Your task to perform on an android device: install app "ZOOM Cloud Meetings" Image 0: 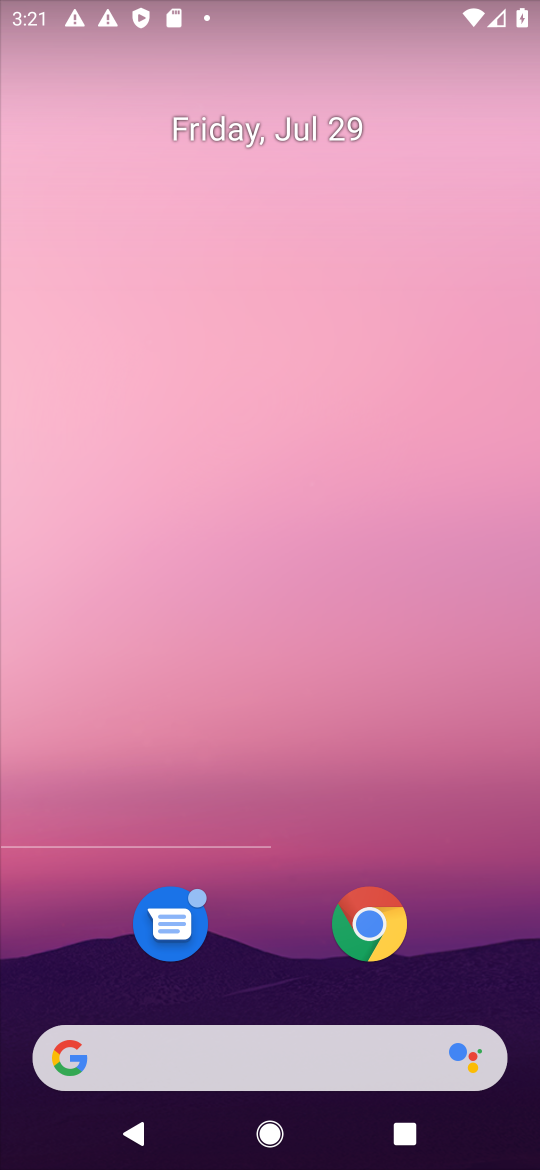
Step 0: press back button
Your task to perform on an android device: install app "ZOOM Cloud Meetings" Image 1: 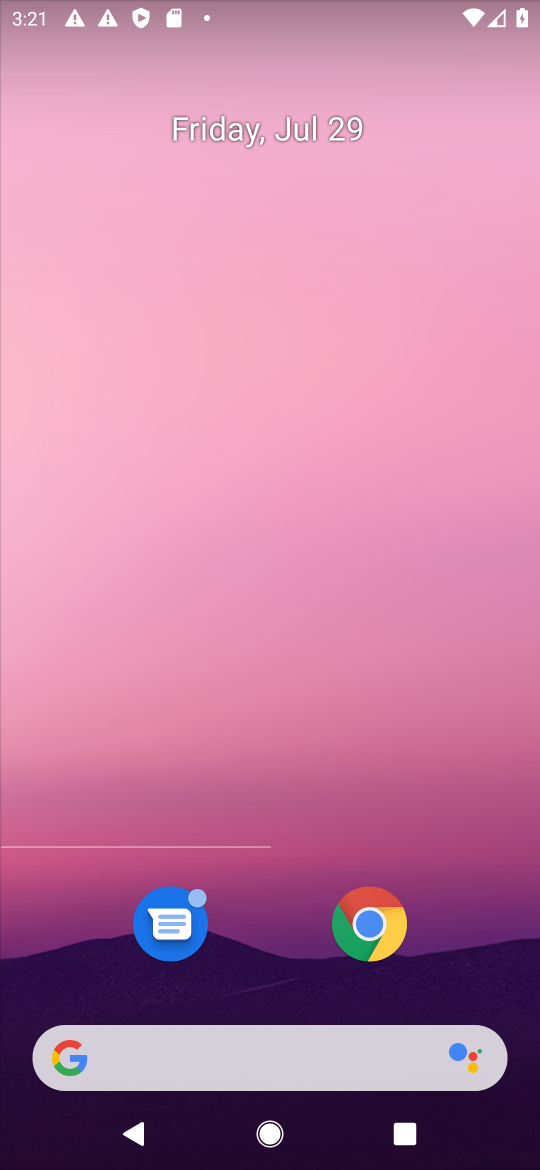
Step 1: press home button
Your task to perform on an android device: install app "ZOOM Cloud Meetings" Image 2: 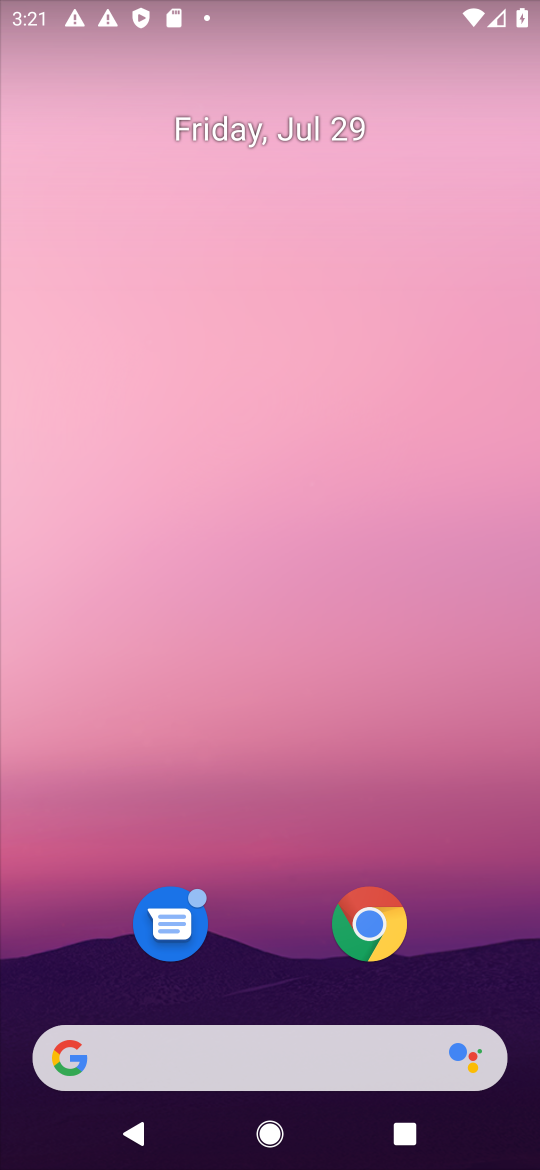
Step 2: press back button
Your task to perform on an android device: install app "ZOOM Cloud Meetings" Image 3: 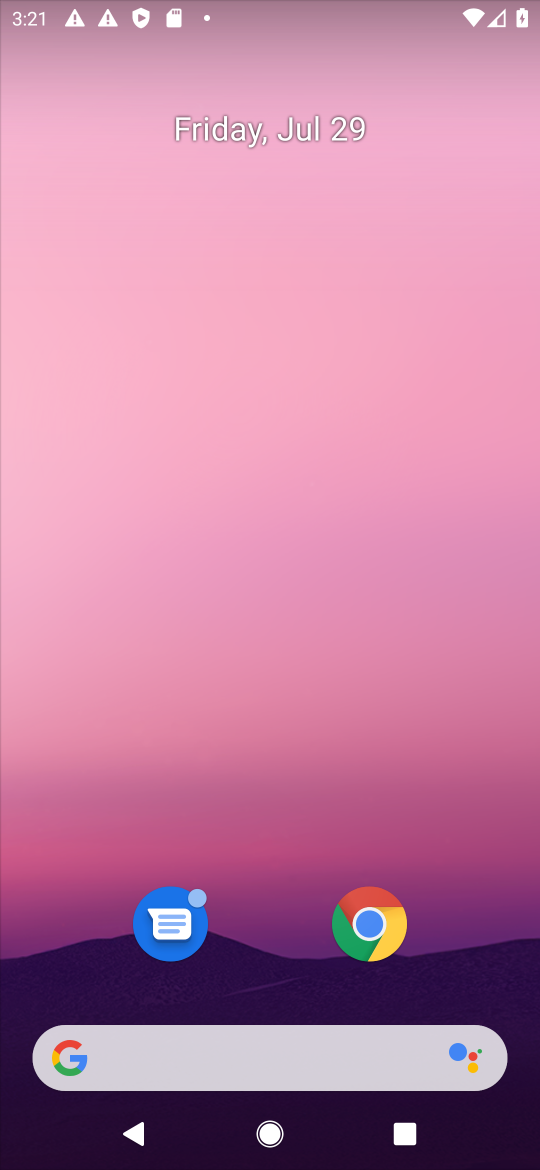
Step 3: drag from (220, 670) to (150, 261)
Your task to perform on an android device: install app "ZOOM Cloud Meetings" Image 4: 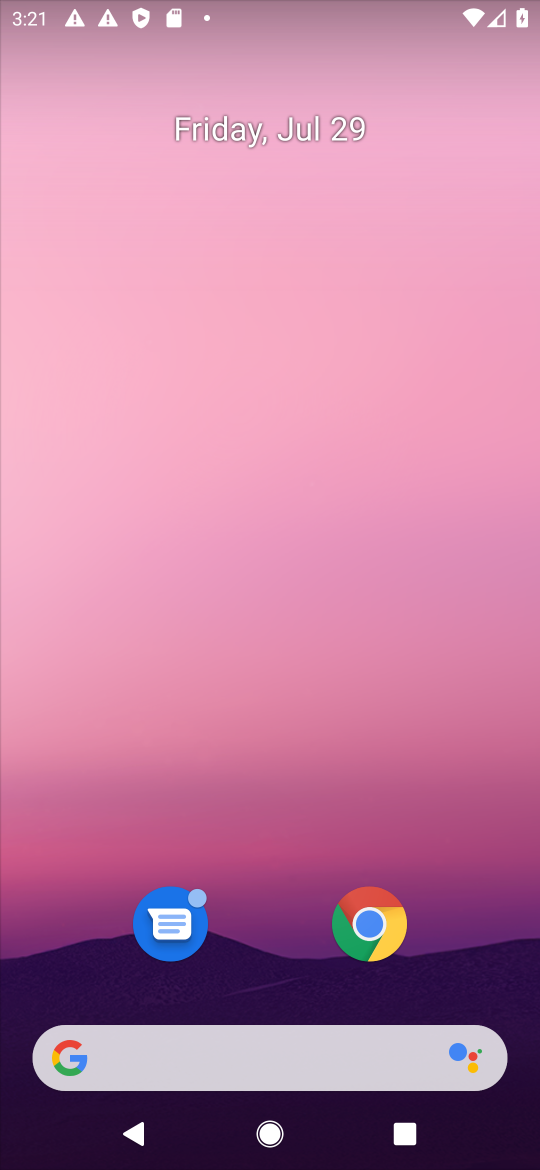
Step 4: drag from (344, 893) to (307, 331)
Your task to perform on an android device: install app "ZOOM Cloud Meetings" Image 5: 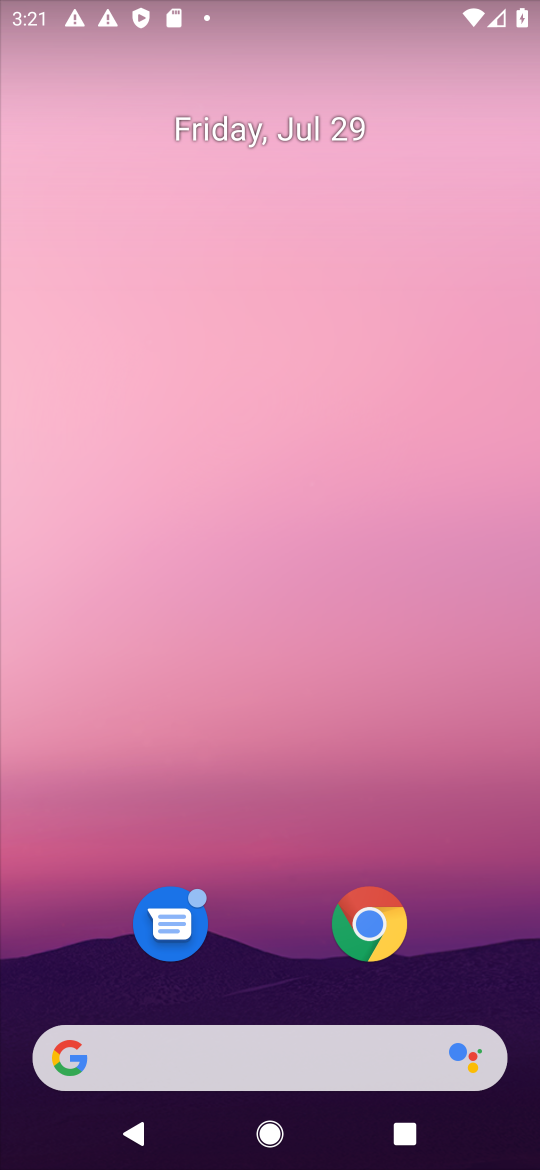
Step 5: drag from (348, 725) to (256, 268)
Your task to perform on an android device: install app "ZOOM Cloud Meetings" Image 6: 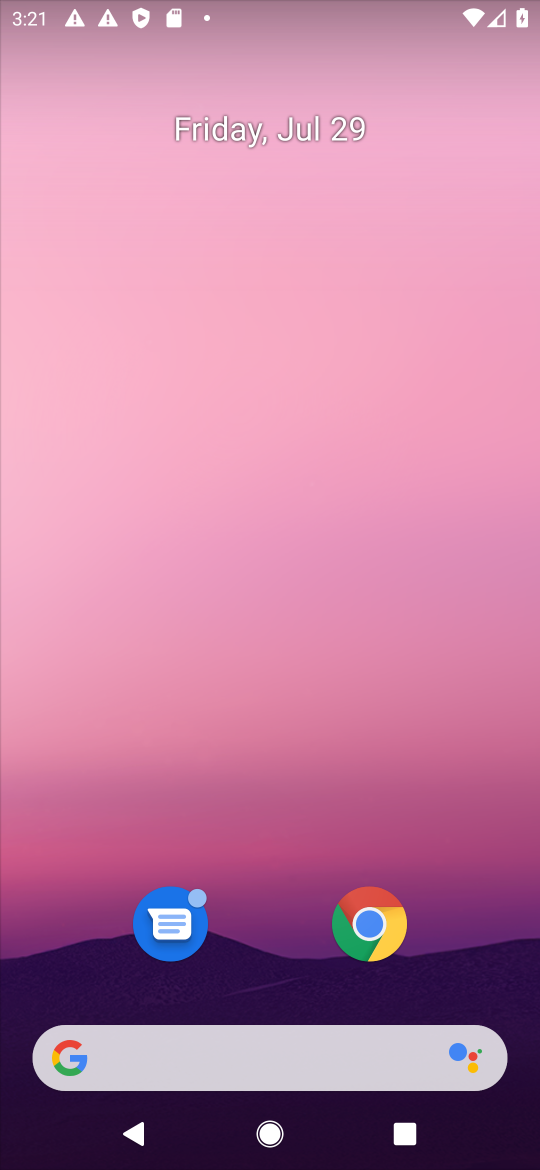
Step 6: drag from (260, 541) to (256, 345)
Your task to perform on an android device: install app "ZOOM Cloud Meetings" Image 7: 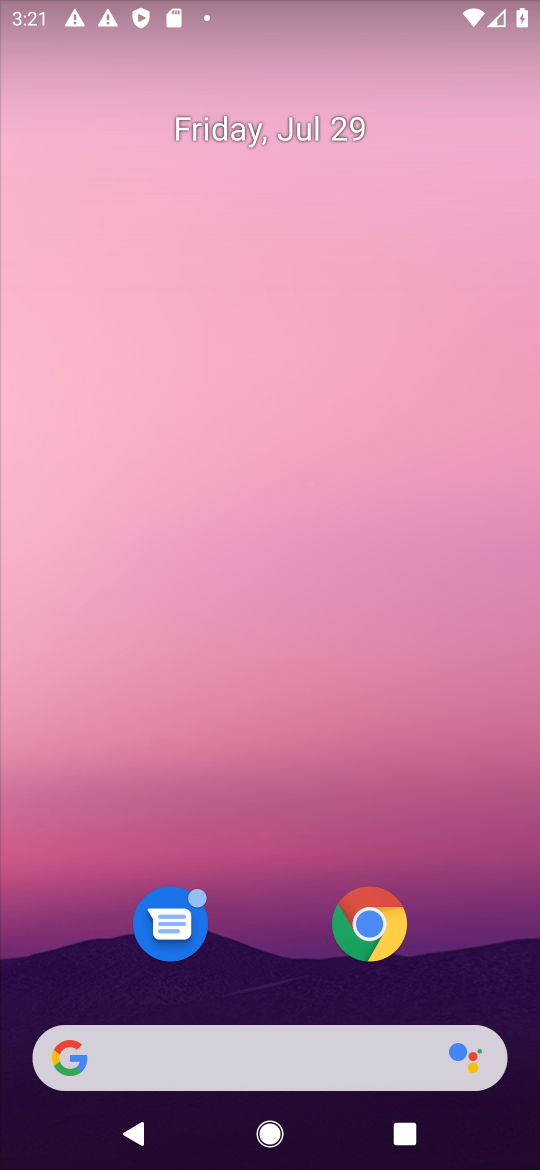
Step 7: drag from (294, 883) to (262, 366)
Your task to perform on an android device: install app "ZOOM Cloud Meetings" Image 8: 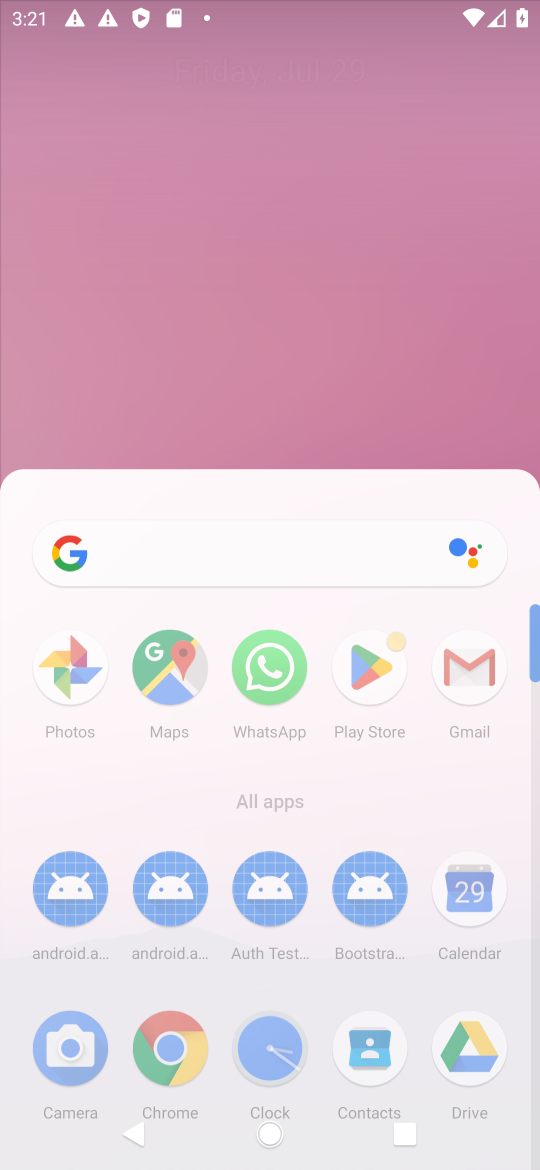
Step 8: drag from (193, 584) to (137, 356)
Your task to perform on an android device: install app "ZOOM Cloud Meetings" Image 9: 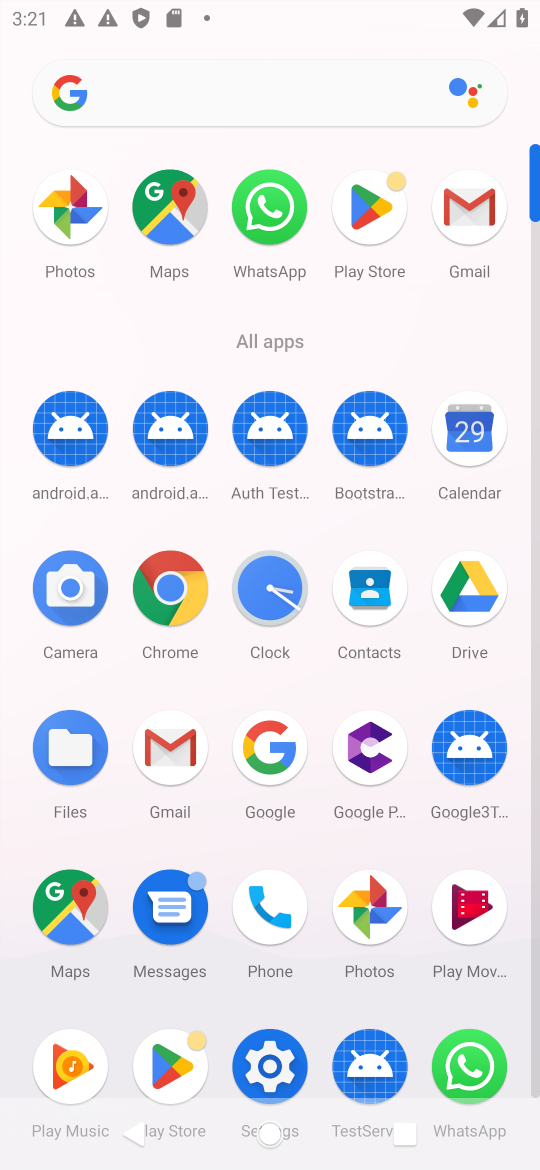
Step 9: drag from (217, 969) to (156, 585)
Your task to perform on an android device: install app "ZOOM Cloud Meetings" Image 10: 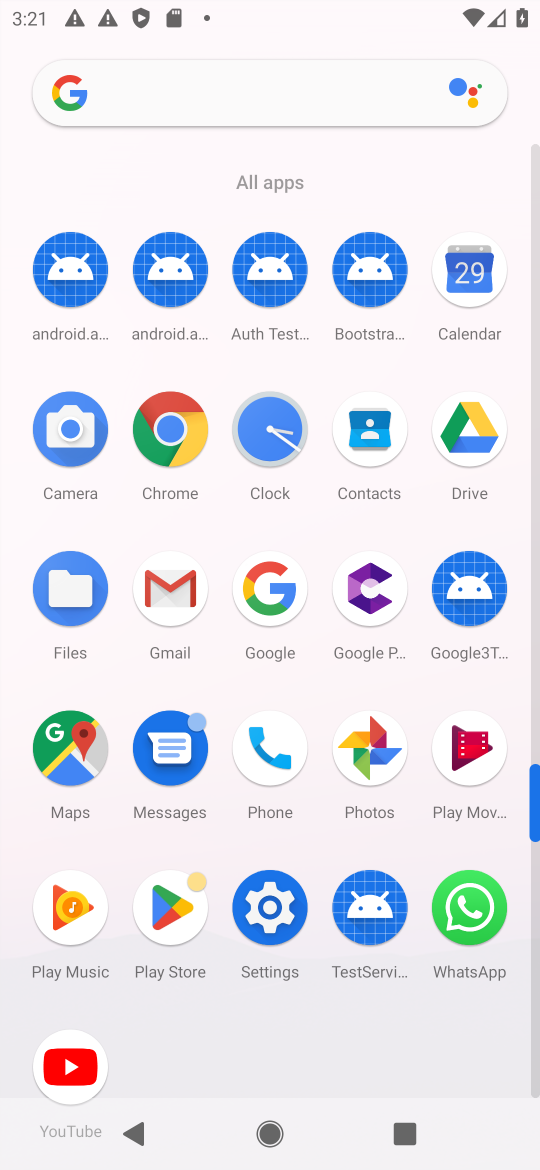
Step 10: click (177, 902)
Your task to perform on an android device: install app "ZOOM Cloud Meetings" Image 11: 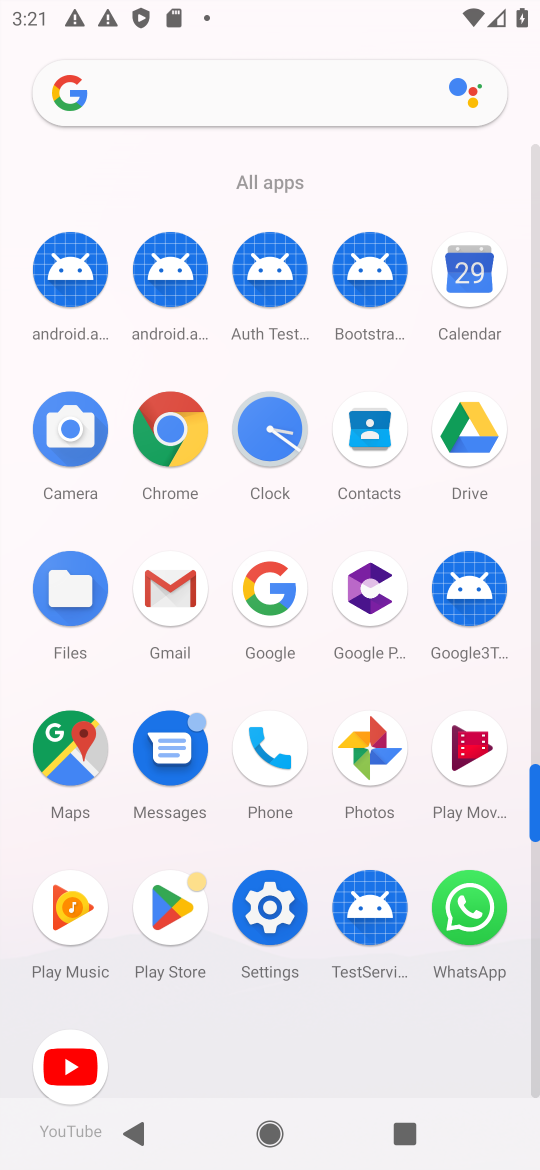
Step 11: click (174, 908)
Your task to perform on an android device: install app "ZOOM Cloud Meetings" Image 12: 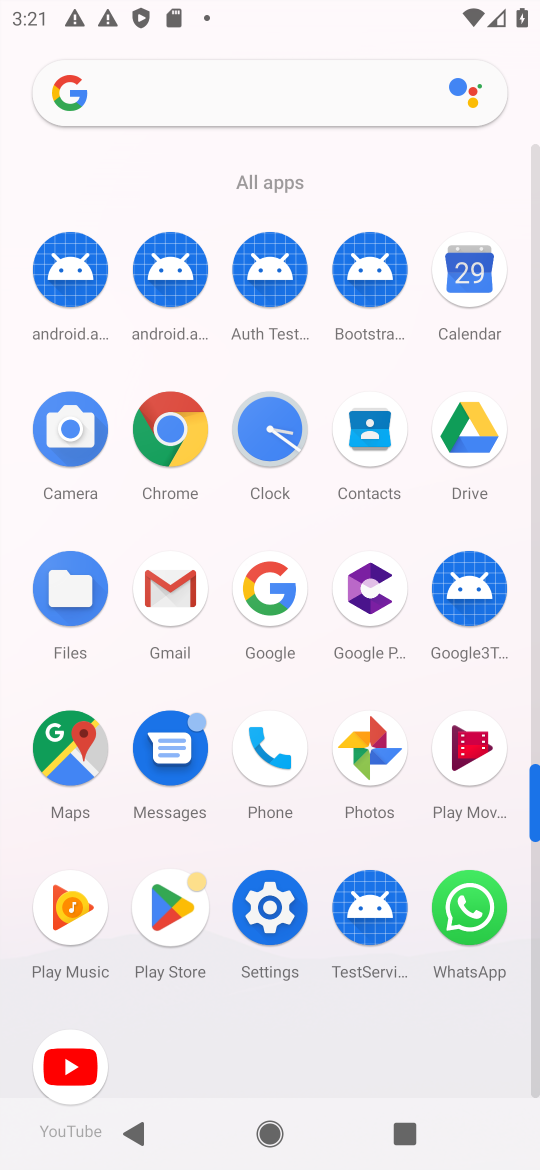
Step 12: click (175, 909)
Your task to perform on an android device: install app "ZOOM Cloud Meetings" Image 13: 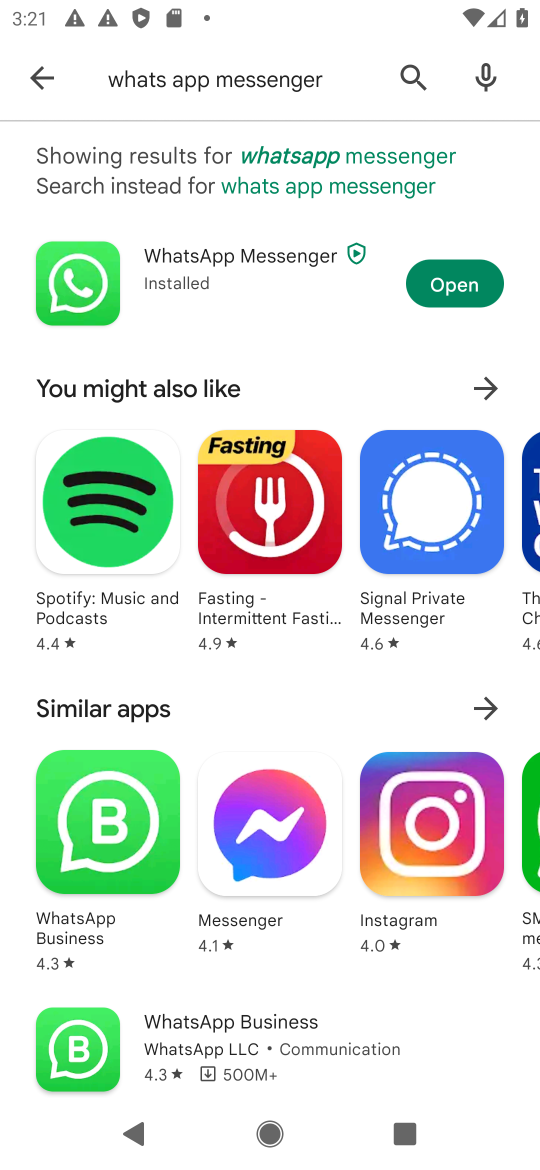
Step 13: click (183, 915)
Your task to perform on an android device: install app "ZOOM Cloud Meetings" Image 14: 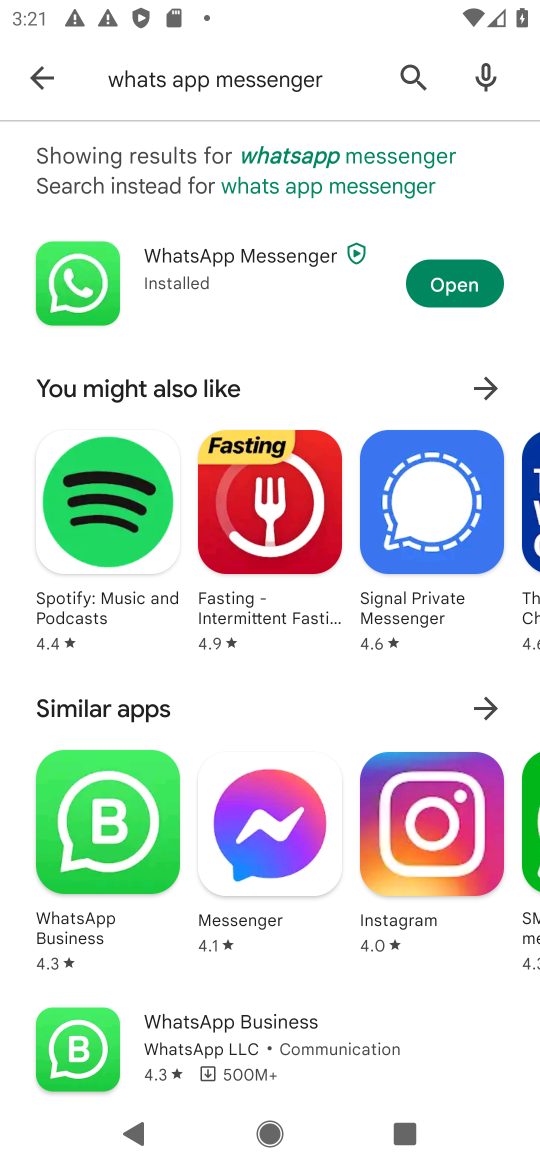
Step 14: click (178, 915)
Your task to perform on an android device: install app "ZOOM Cloud Meetings" Image 15: 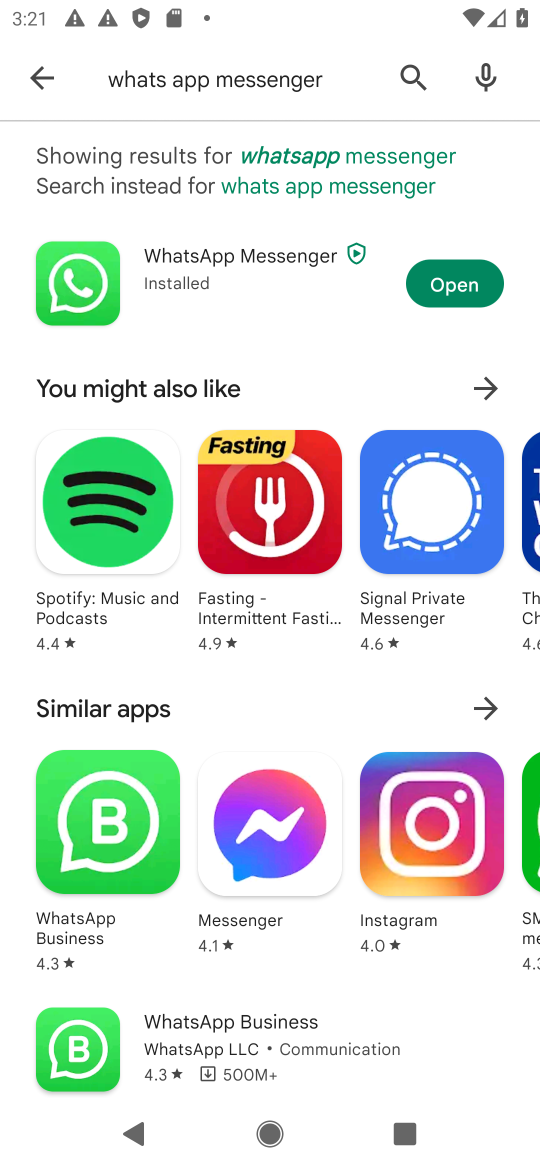
Step 15: click (180, 914)
Your task to perform on an android device: install app "ZOOM Cloud Meetings" Image 16: 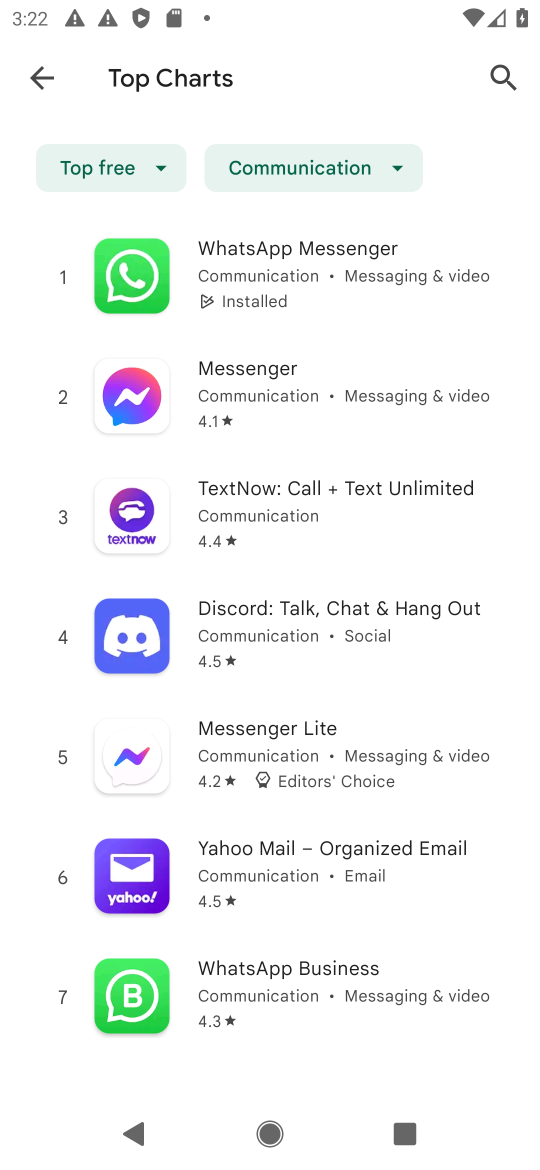
Step 16: click (44, 82)
Your task to perform on an android device: install app "ZOOM Cloud Meetings" Image 17: 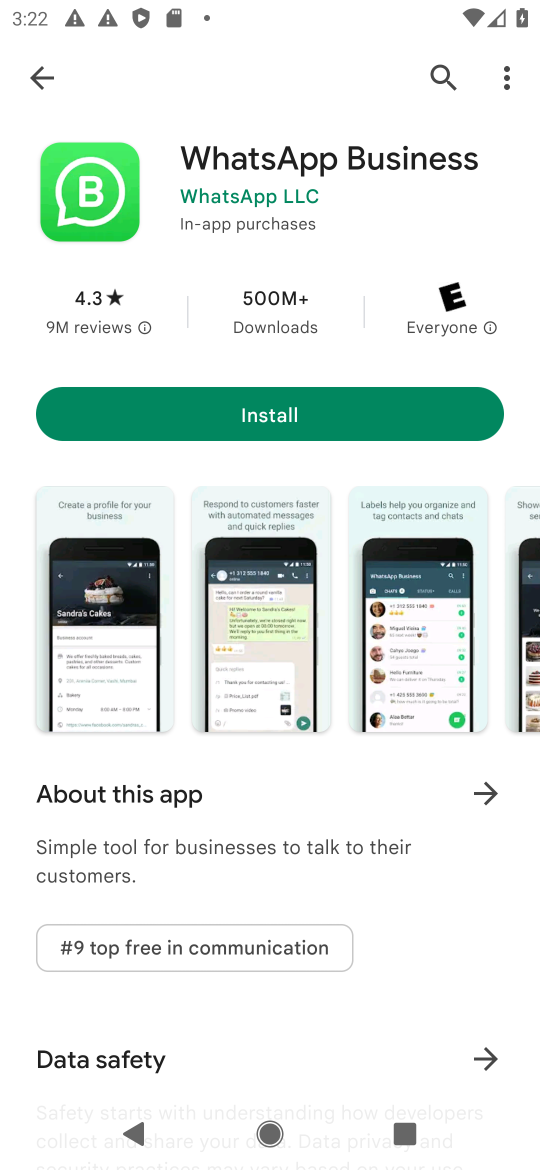
Step 17: click (45, 77)
Your task to perform on an android device: install app "ZOOM Cloud Meetings" Image 18: 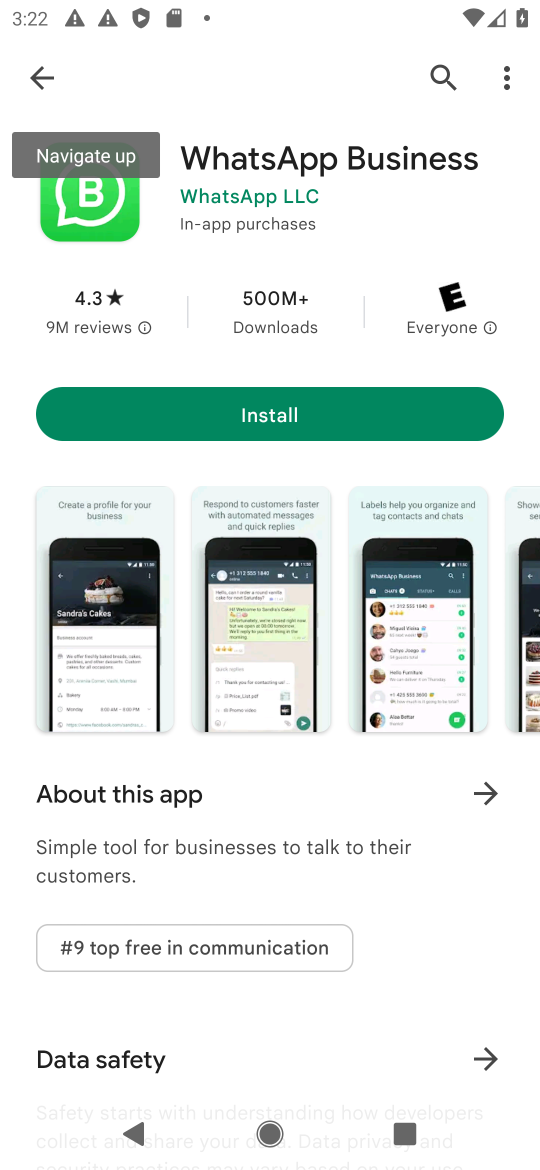
Step 18: click (45, 77)
Your task to perform on an android device: install app "ZOOM Cloud Meetings" Image 19: 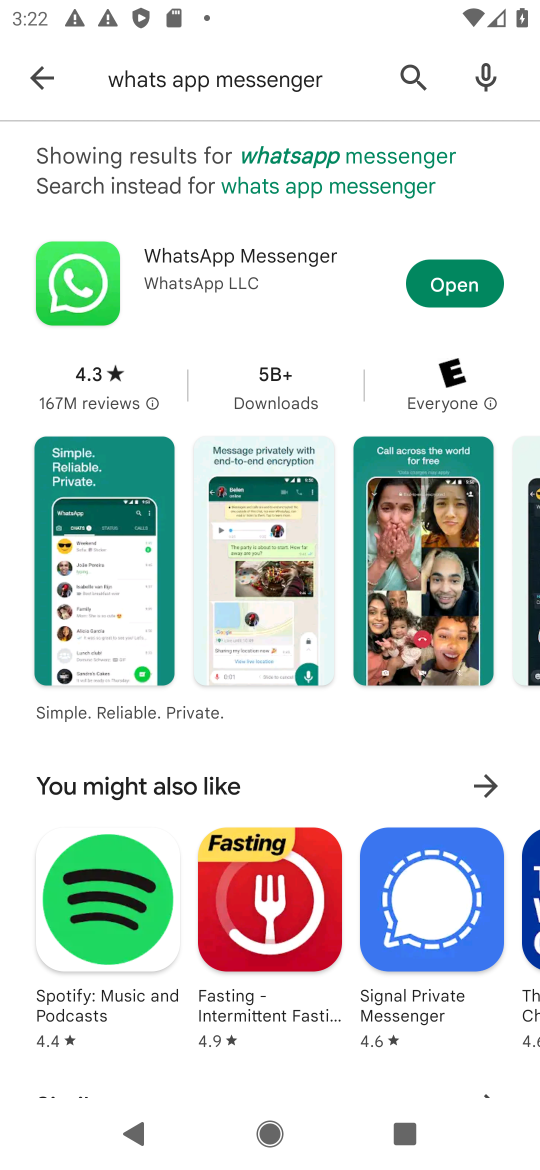
Step 19: click (41, 82)
Your task to perform on an android device: install app "ZOOM Cloud Meetings" Image 20: 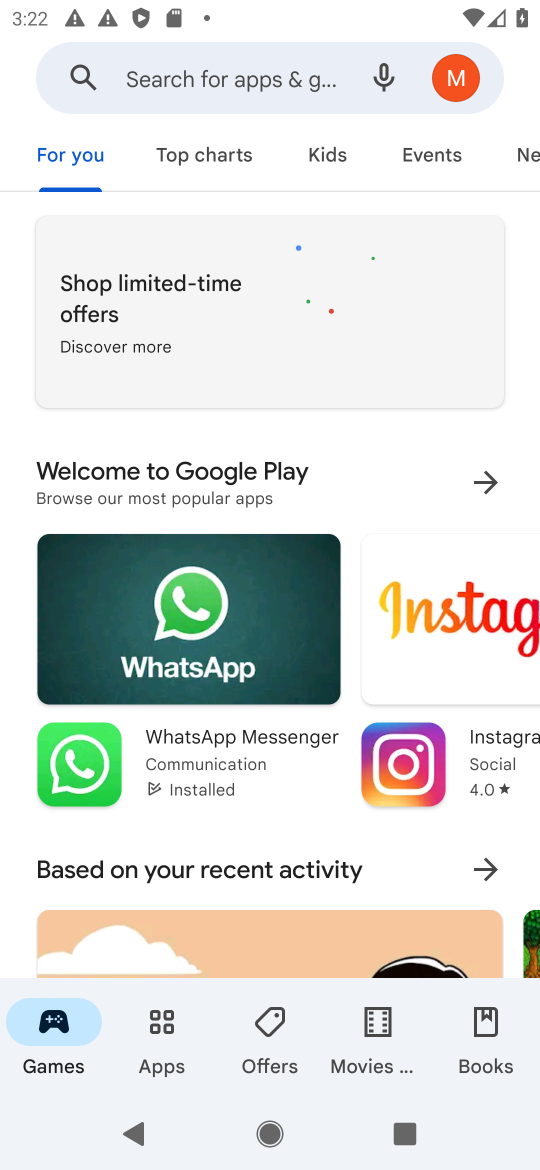
Step 20: click (152, 58)
Your task to perform on an android device: install app "ZOOM Cloud Meetings" Image 21: 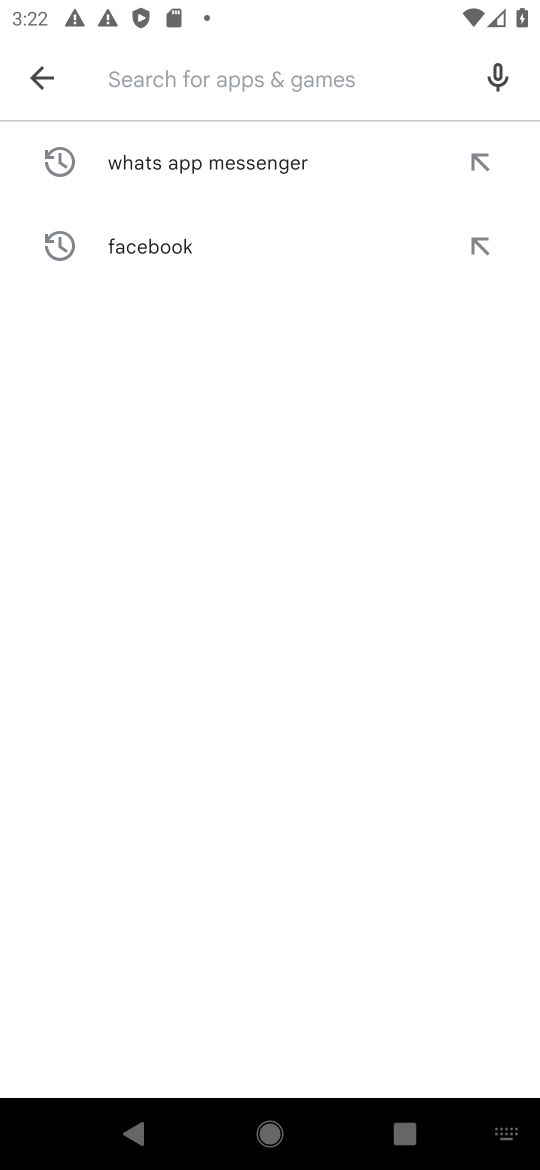
Step 21: type "Zoom Cloud Meetings"
Your task to perform on an android device: install app "ZOOM Cloud Meetings" Image 22: 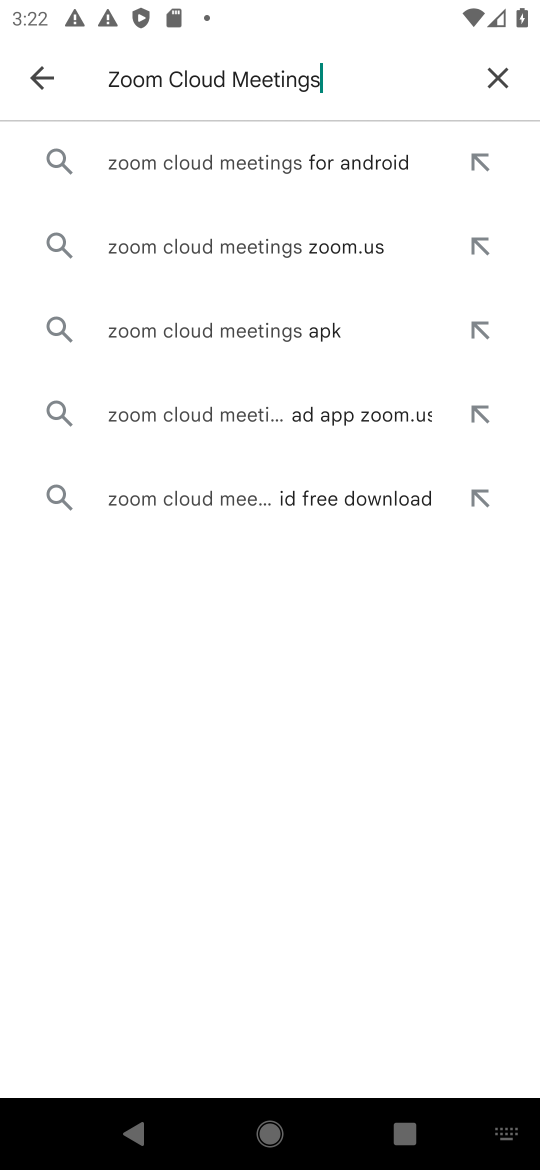
Step 22: click (283, 154)
Your task to perform on an android device: install app "ZOOM Cloud Meetings" Image 23: 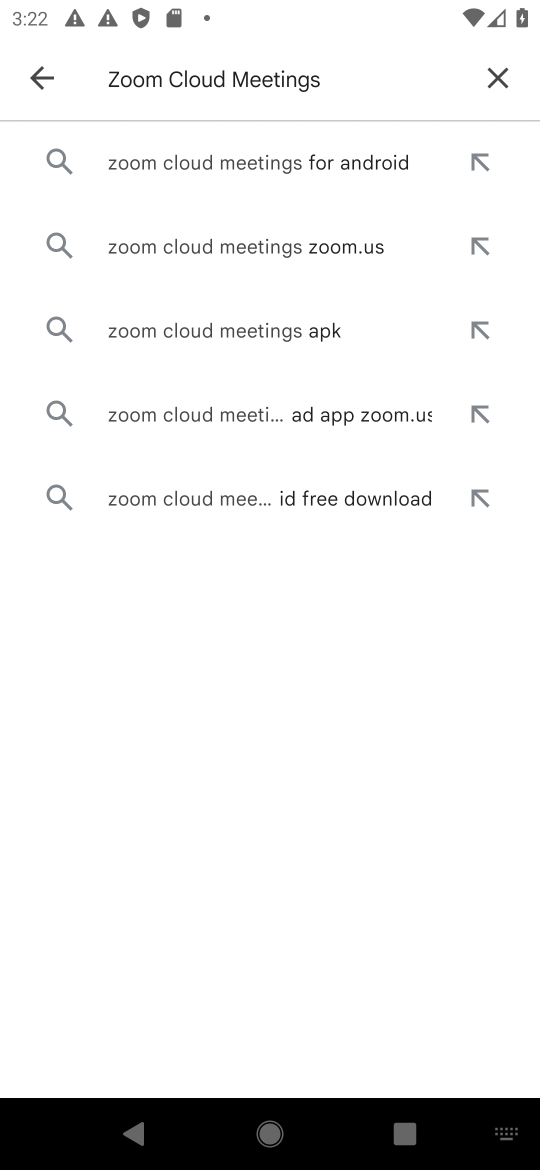
Step 23: click (285, 159)
Your task to perform on an android device: install app "ZOOM Cloud Meetings" Image 24: 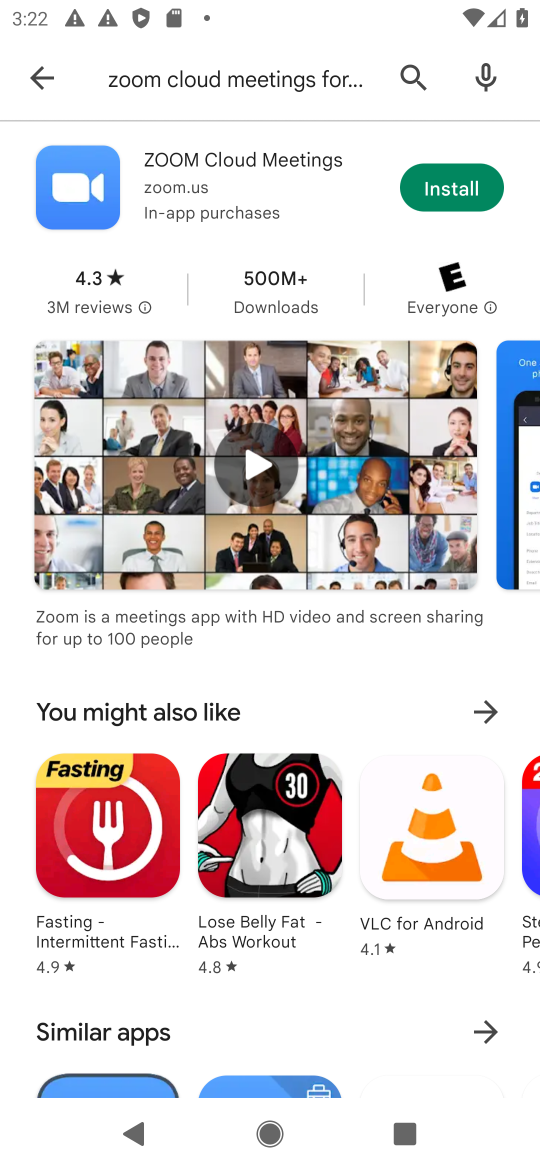
Step 24: click (464, 191)
Your task to perform on an android device: install app "ZOOM Cloud Meetings" Image 25: 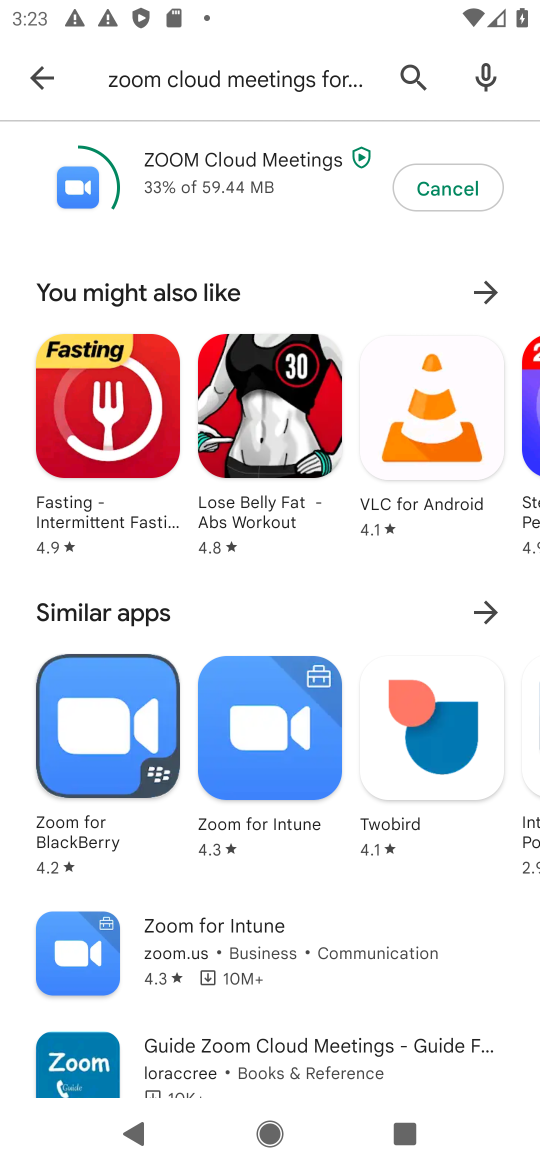
Step 25: click (240, 8)
Your task to perform on an android device: install app "ZOOM Cloud Meetings" Image 26: 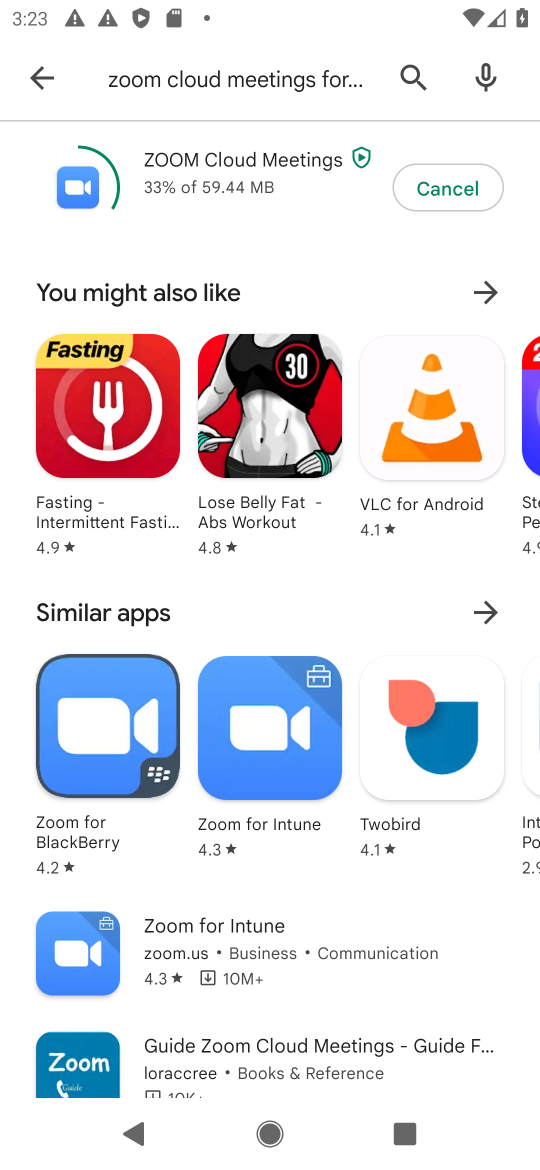
Step 26: drag from (490, 959) to (354, 906)
Your task to perform on an android device: install app "ZOOM Cloud Meetings" Image 27: 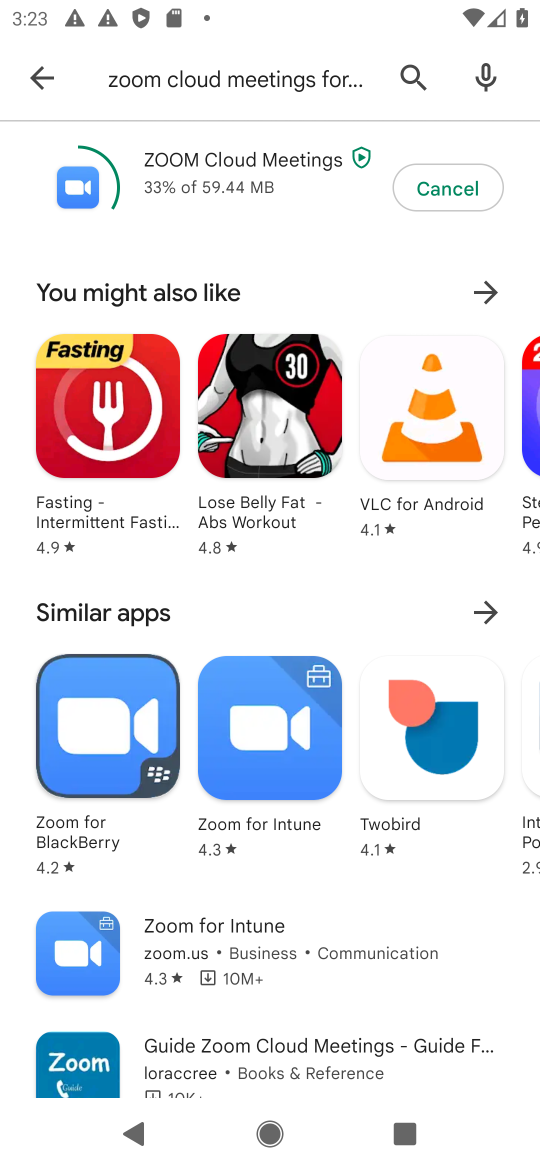
Step 27: drag from (298, 546) to (298, 894)
Your task to perform on an android device: install app "ZOOM Cloud Meetings" Image 28: 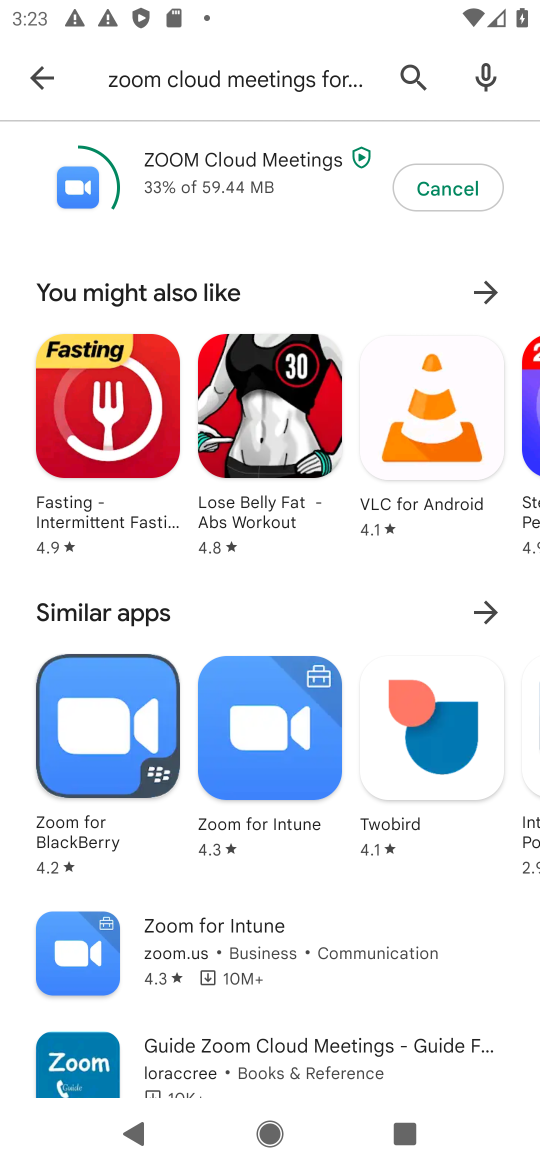
Step 28: click (372, 522)
Your task to perform on an android device: install app "ZOOM Cloud Meetings" Image 29: 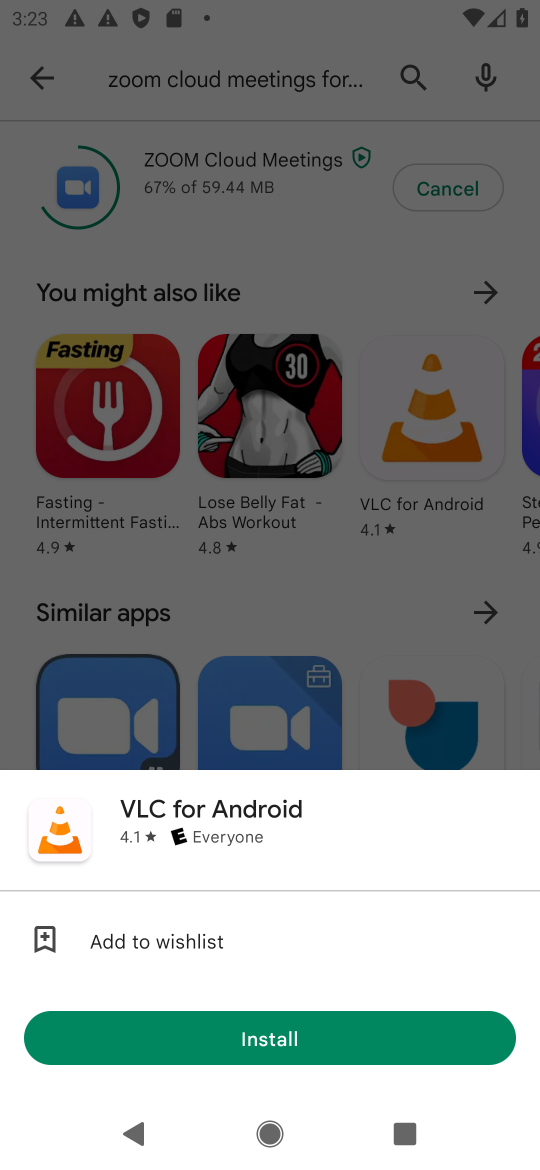
Step 29: click (356, 587)
Your task to perform on an android device: install app "ZOOM Cloud Meetings" Image 30: 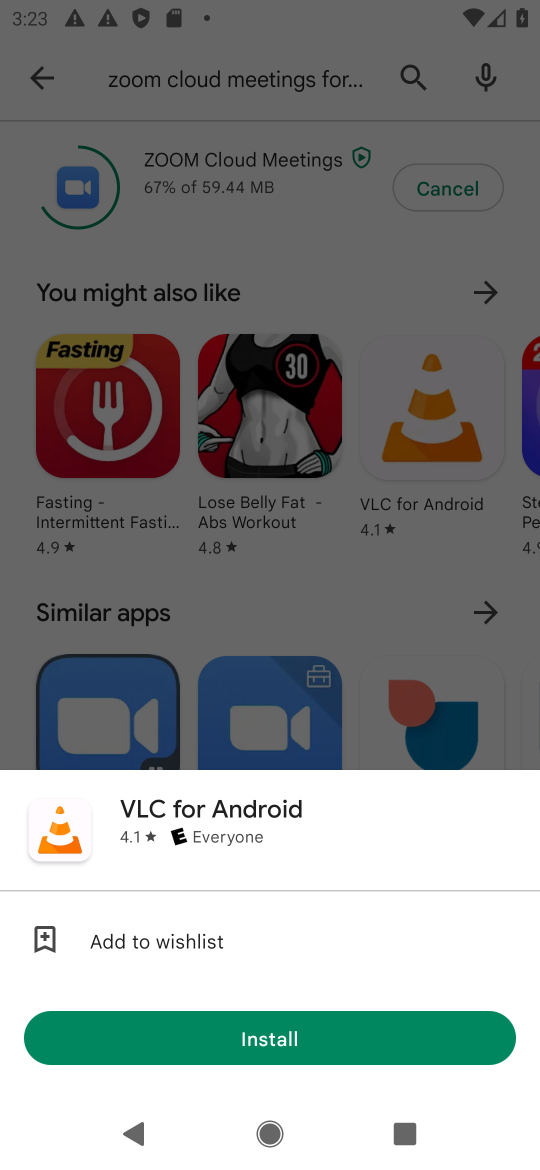
Step 30: click (356, 586)
Your task to perform on an android device: install app "ZOOM Cloud Meetings" Image 31: 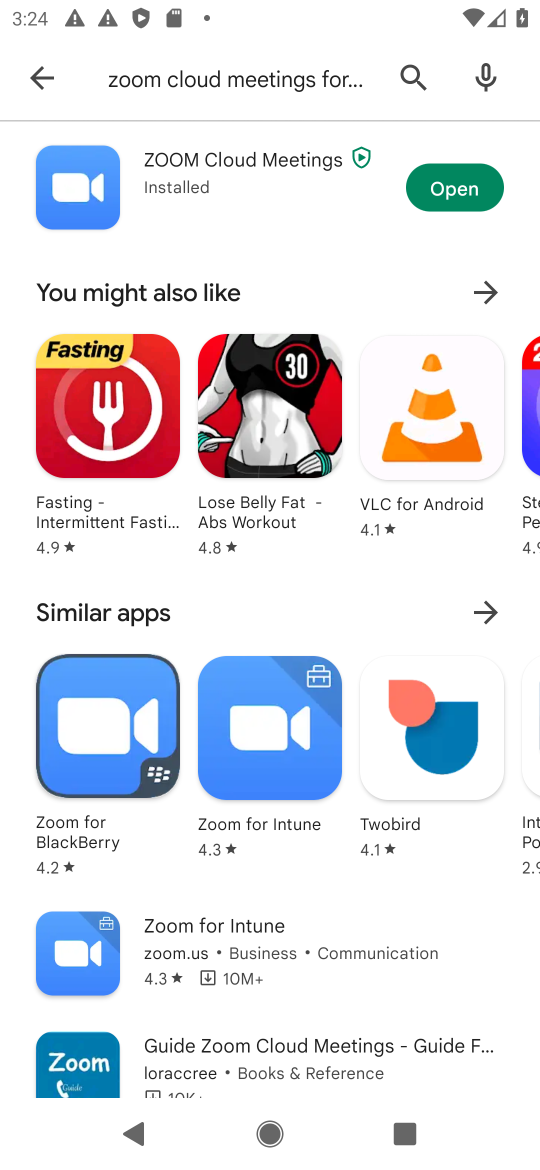
Step 31: click (426, 182)
Your task to perform on an android device: install app "ZOOM Cloud Meetings" Image 32: 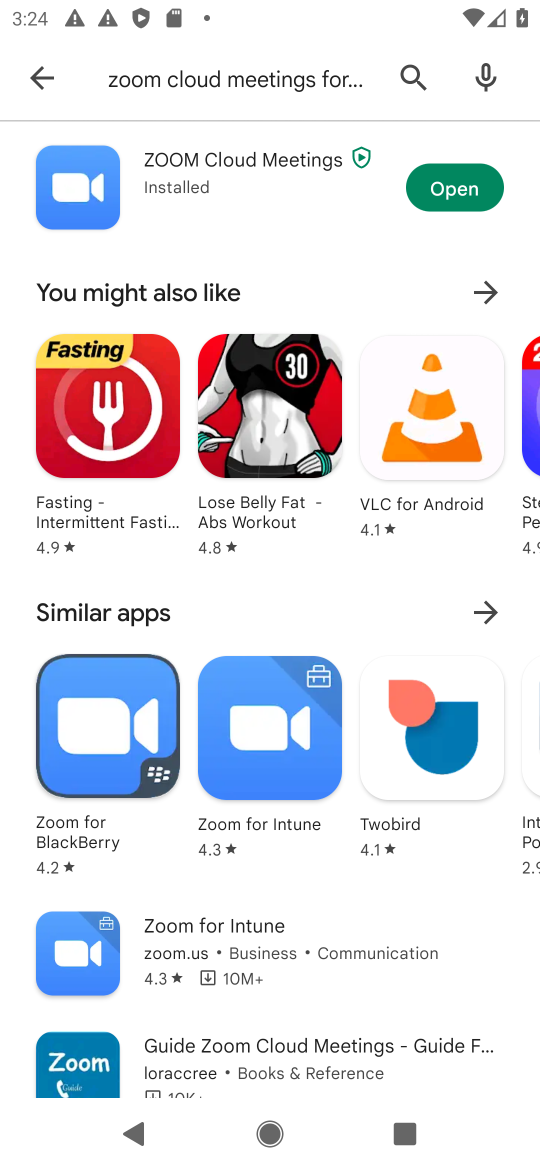
Step 32: click (457, 189)
Your task to perform on an android device: install app "ZOOM Cloud Meetings" Image 33: 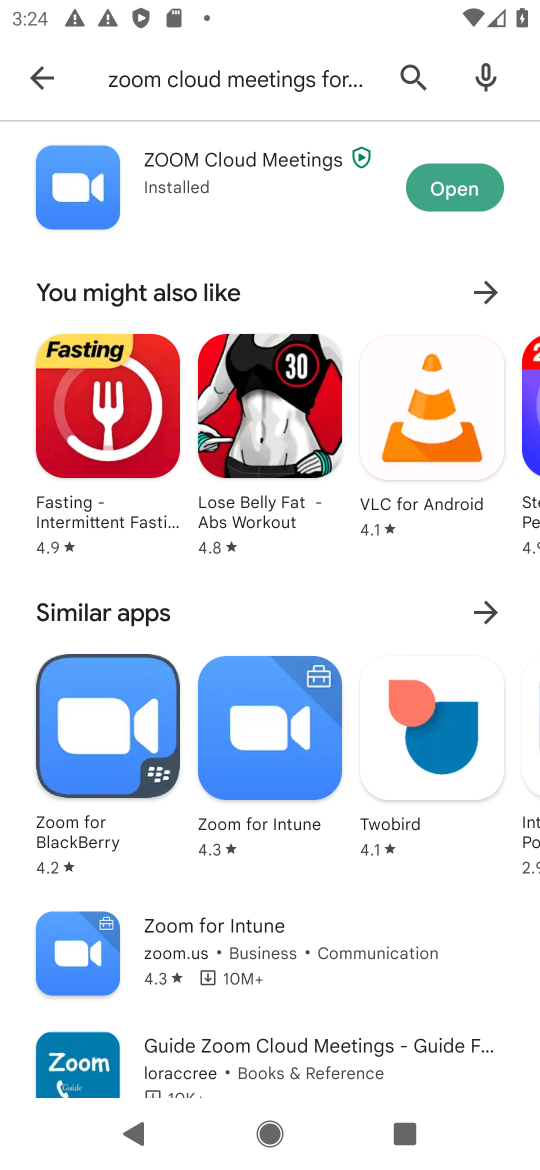
Step 33: click (462, 188)
Your task to perform on an android device: install app "ZOOM Cloud Meetings" Image 34: 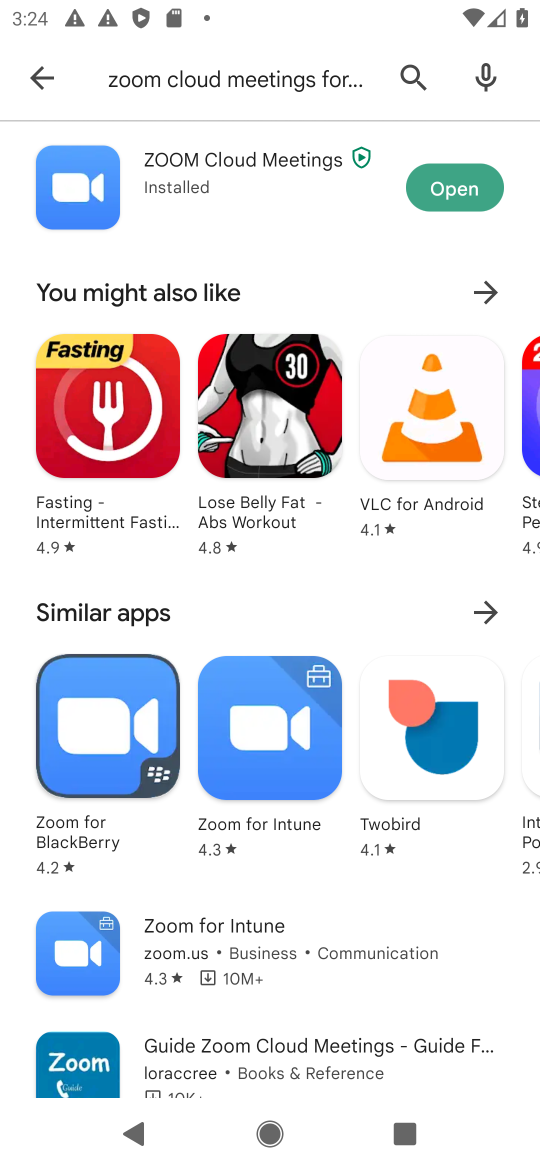
Step 34: click (468, 198)
Your task to perform on an android device: install app "ZOOM Cloud Meetings" Image 35: 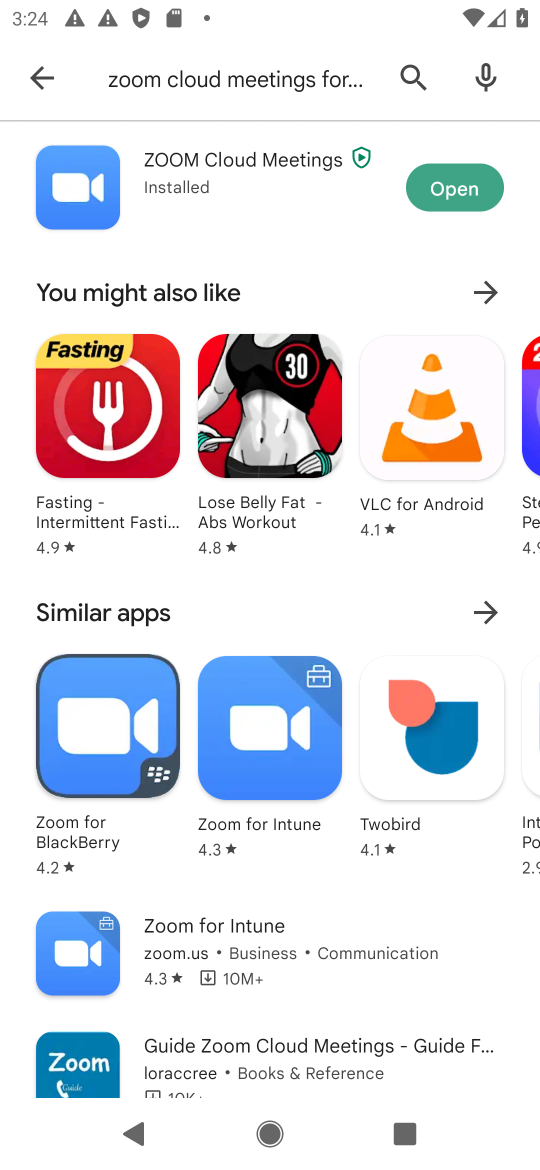
Step 35: click (469, 203)
Your task to perform on an android device: install app "ZOOM Cloud Meetings" Image 36: 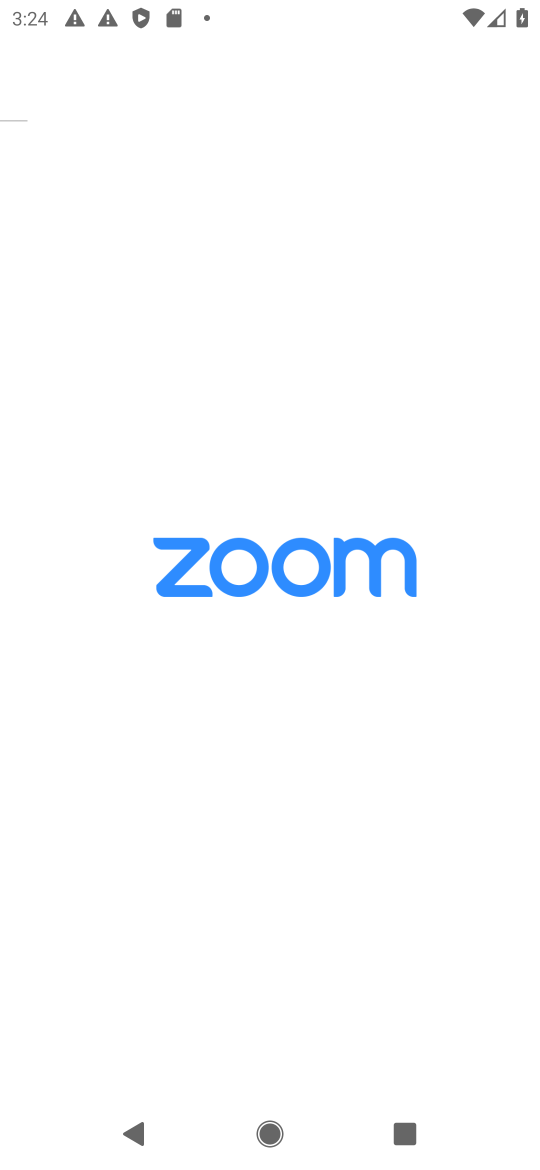
Step 36: click (454, 185)
Your task to perform on an android device: install app "ZOOM Cloud Meetings" Image 37: 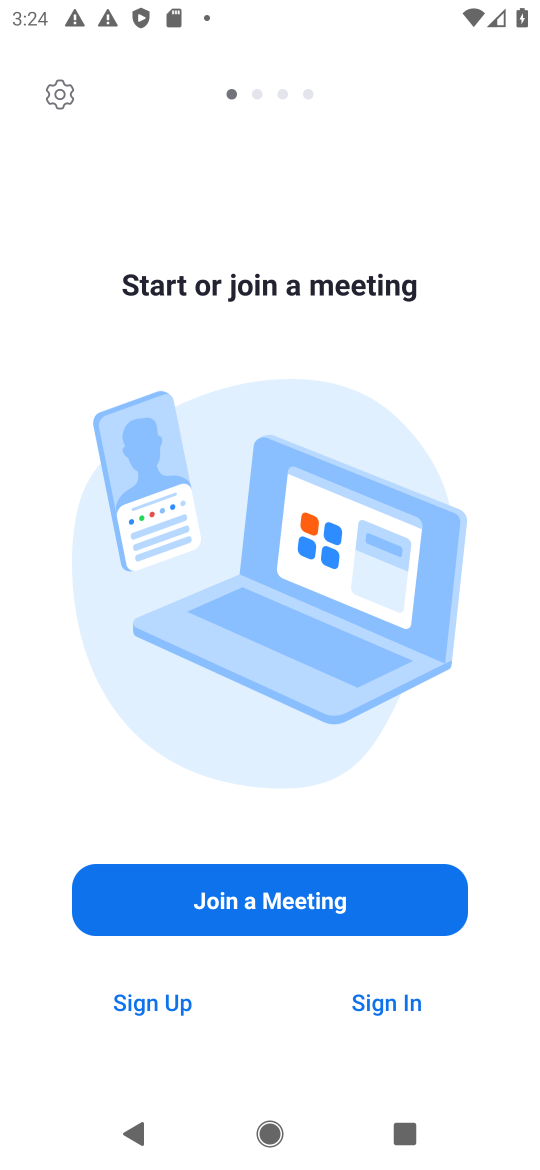
Step 37: click (273, 94)
Your task to perform on an android device: install app "ZOOM Cloud Meetings" Image 38: 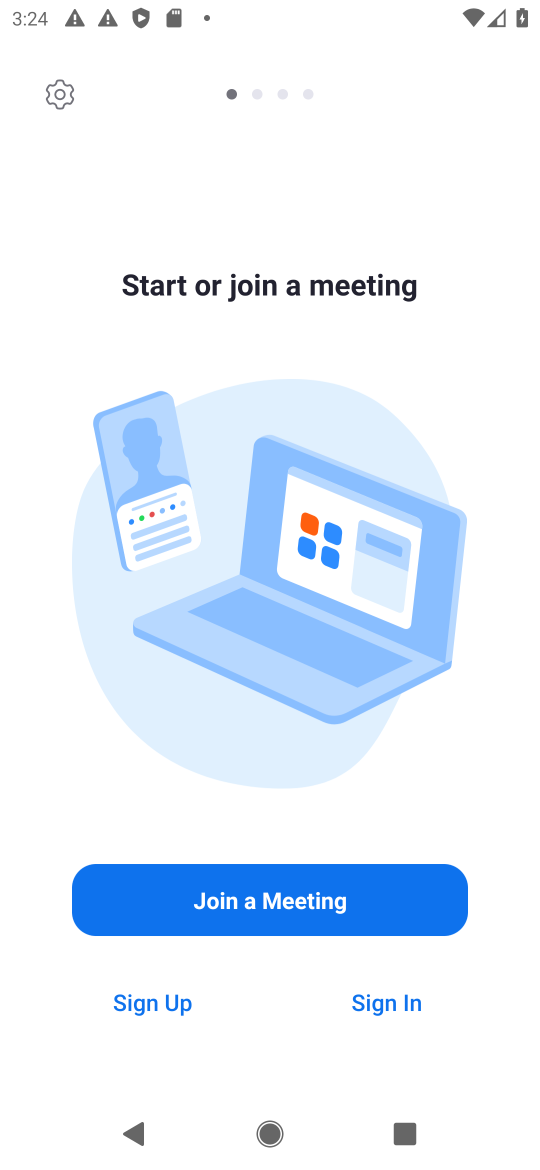
Step 38: task complete